Your task to perform on an android device: Search for a new foundation on Sephora Image 0: 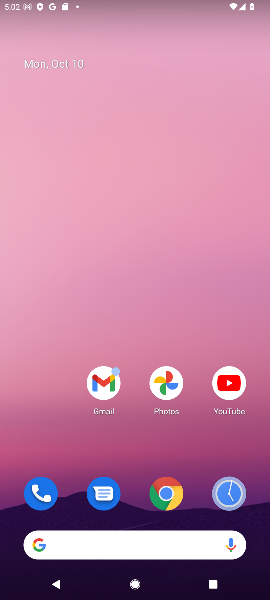
Step 0: click (96, 553)
Your task to perform on an android device: Search for a new foundation on Sephora Image 1: 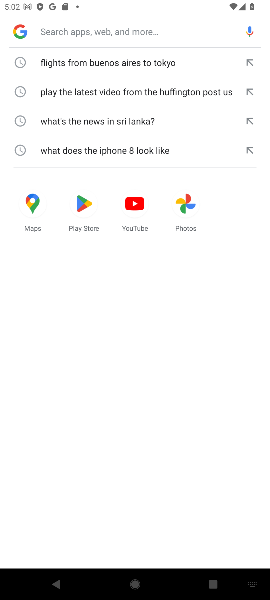
Step 1: type "Search for a new foundation on Sephora"
Your task to perform on an android device: Search for a new foundation on Sephora Image 2: 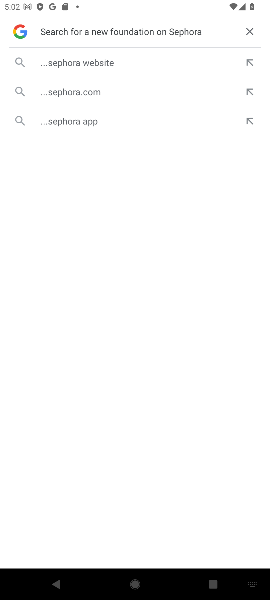
Step 2: click (52, 50)
Your task to perform on an android device: Search for a new foundation on Sephora Image 3: 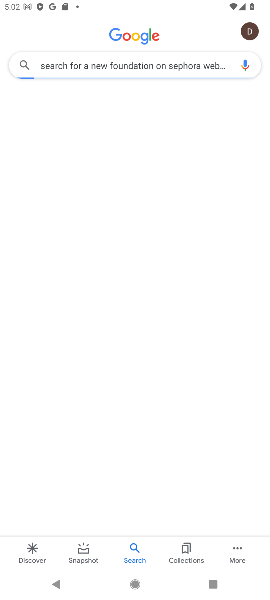
Step 3: task complete